Your task to perform on an android device: turn on location history Image 0: 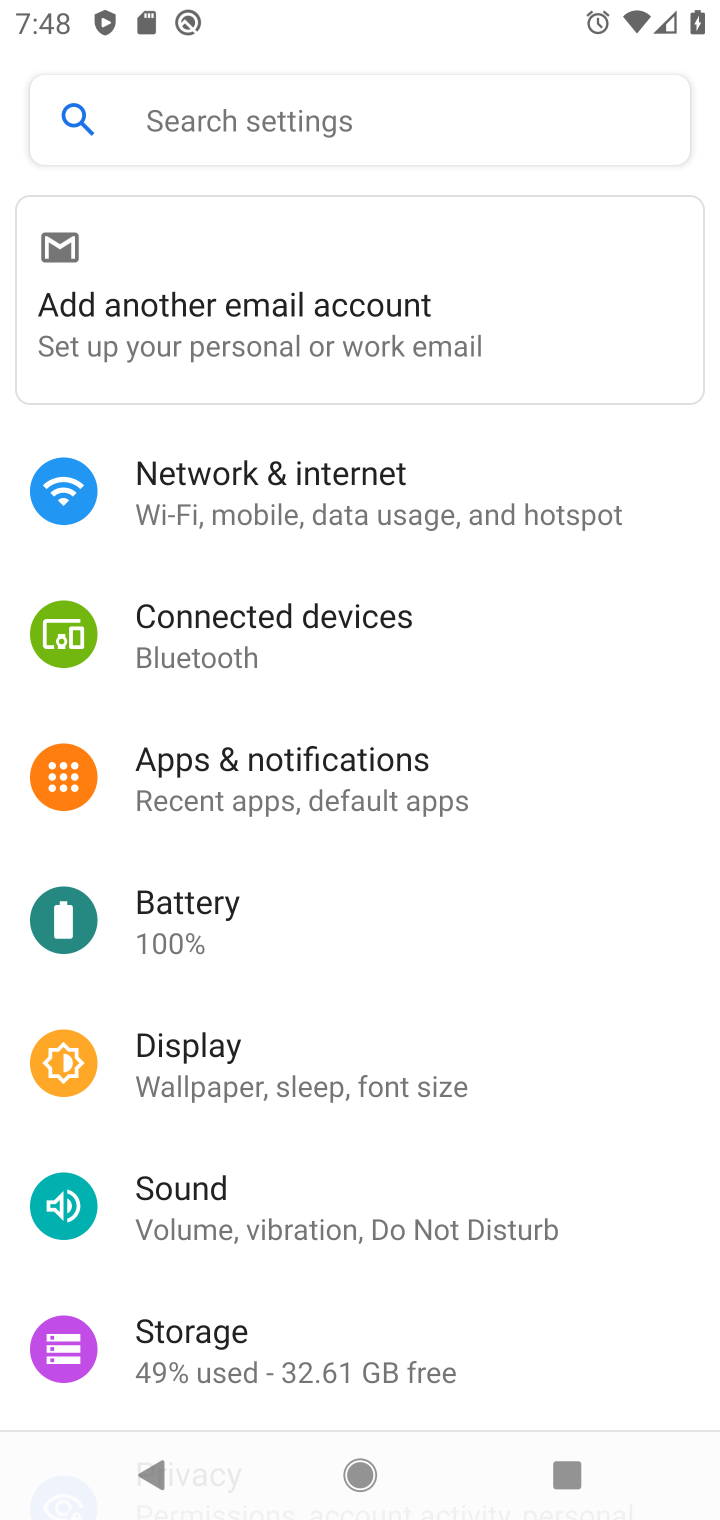
Step 0: press home button
Your task to perform on an android device: turn on location history Image 1: 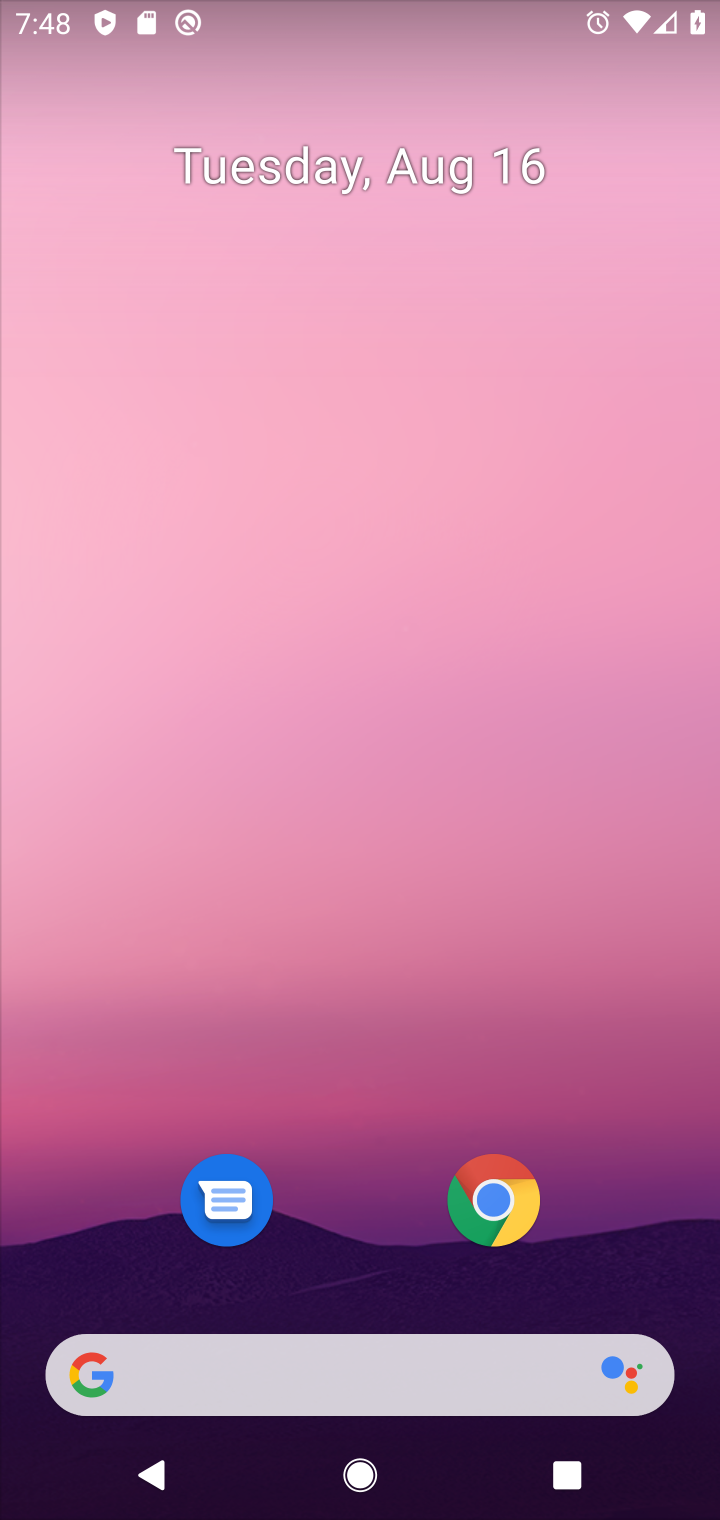
Step 1: task complete